Your task to perform on an android device: What's the weather going to be tomorrow? Image 0: 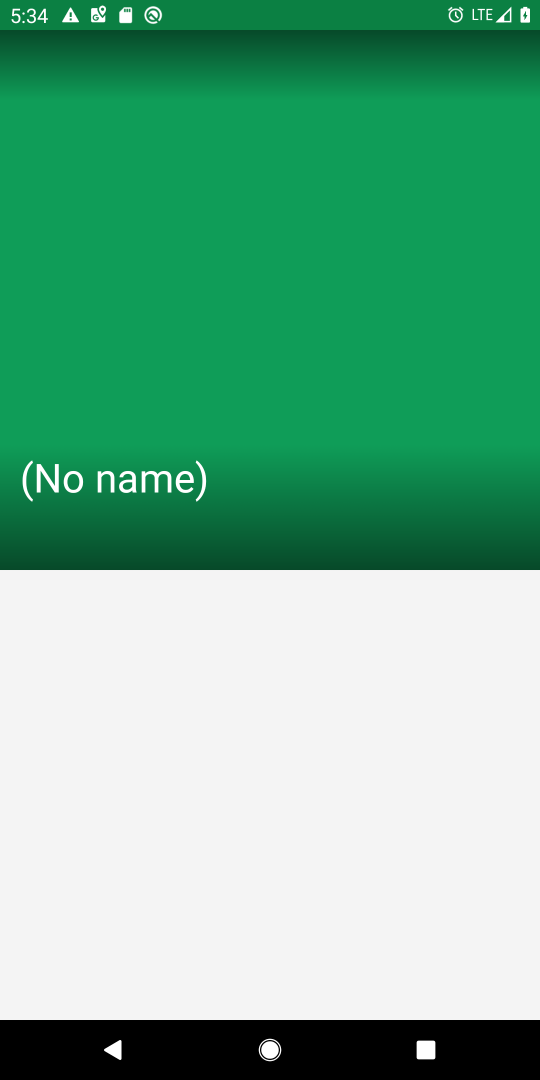
Step 0: click (246, 976)
Your task to perform on an android device: What's the weather going to be tomorrow? Image 1: 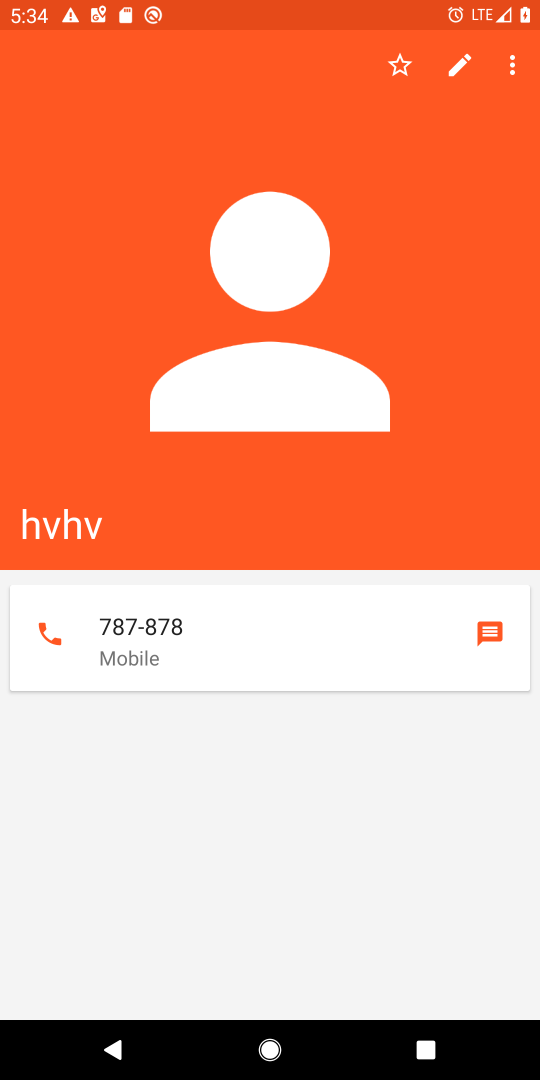
Step 1: press back button
Your task to perform on an android device: What's the weather going to be tomorrow? Image 2: 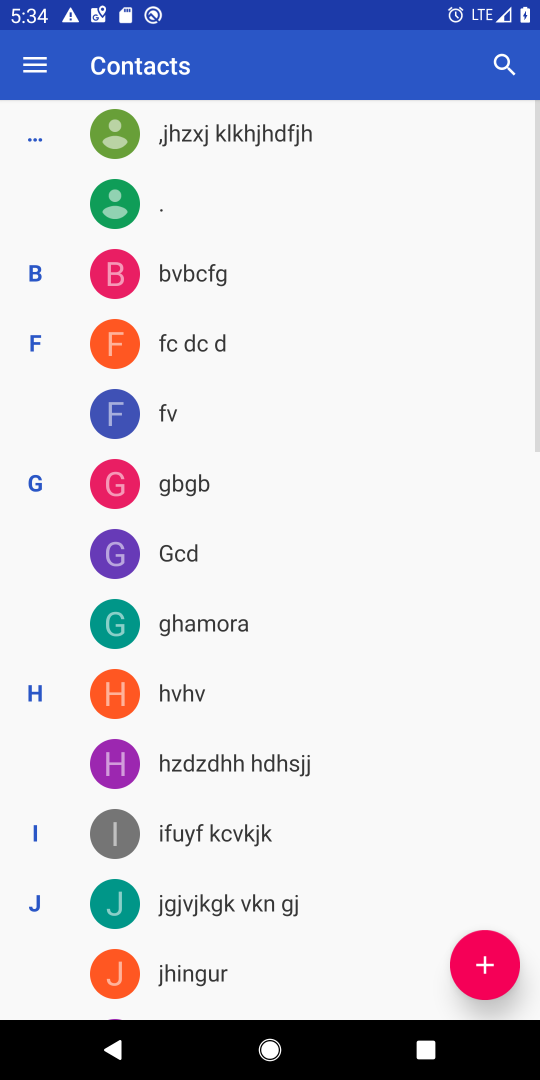
Step 2: press back button
Your task to perform on an android device: What's the weather going to be tomorrow? Image 3: 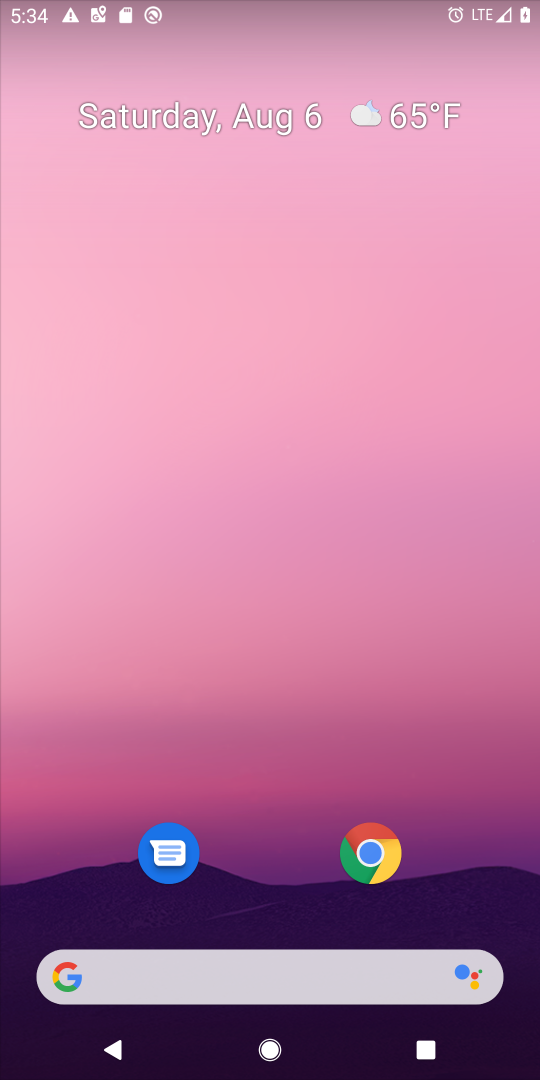
Step 3: click (310, 979)
Your task to perform on an android device: What's the weather going to be tomorrow? Image 4: 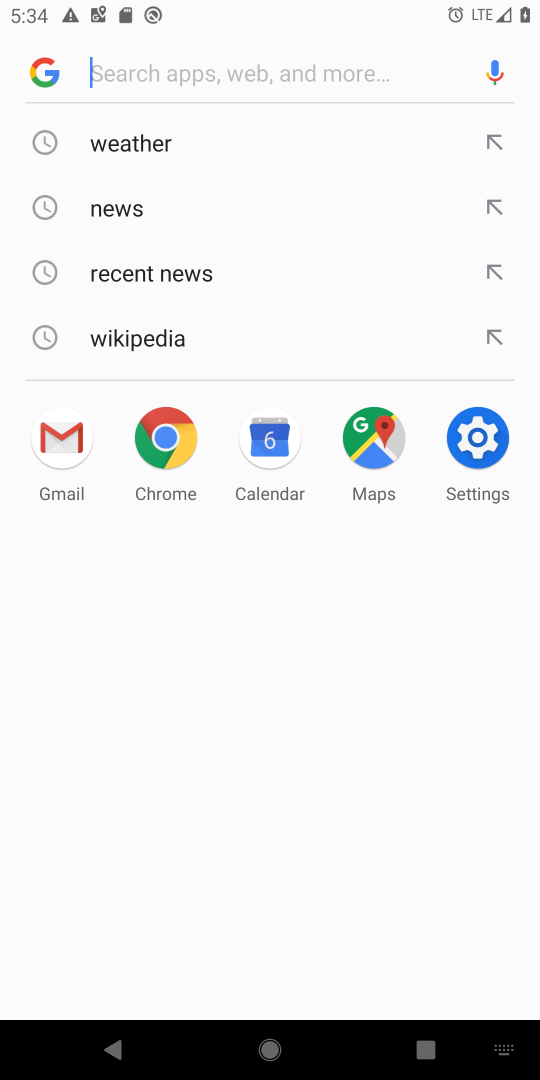
Step 4: click (138, 129)
Your task to perform on an android device: What's the weather going to be tomorrow? Image 5: 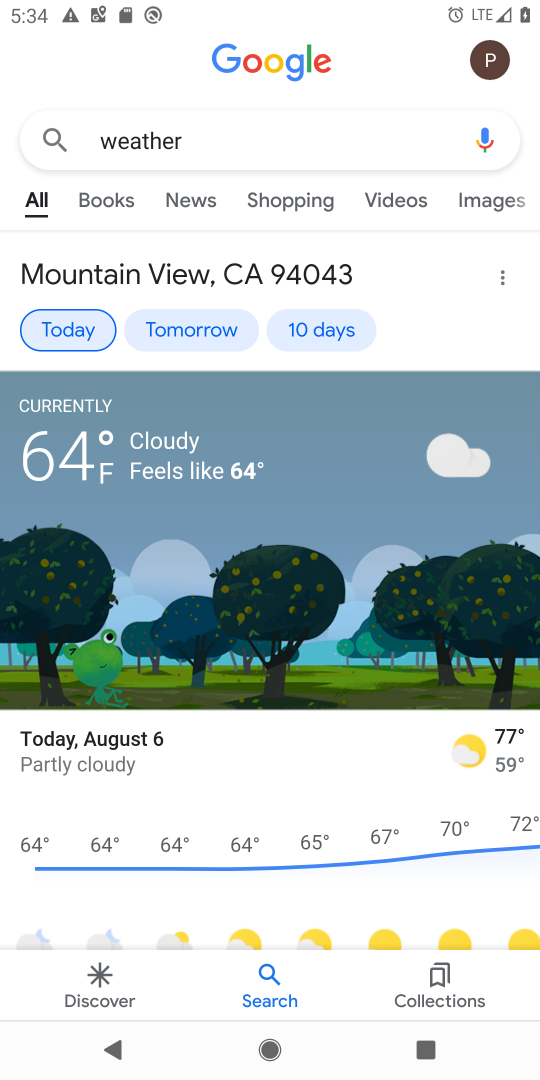
Step 5: click (194, 326)
Your task to perform on an android device: What's the weather going to be tomorrow? Image 6: 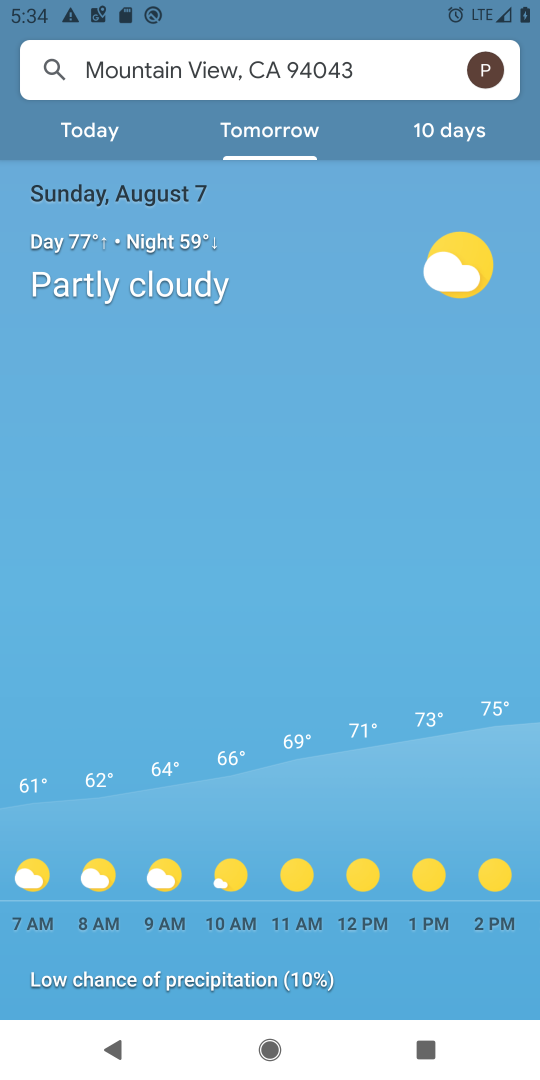
Step 6: task complete